Your task to perform on an android device: check out phone information Image 0: 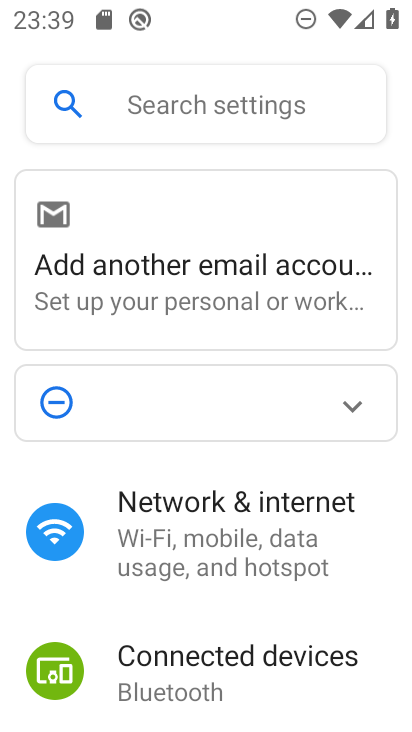
Step 0: press home button
Your task to perform on an android device: check out phone information Image 1: 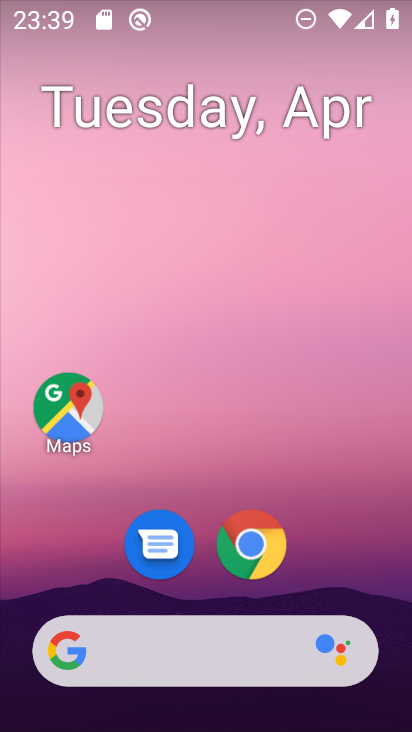
Step 1: drag from (326, 558) to (385, 79)
Your task to perform on an android device: check out phone information Image 2: 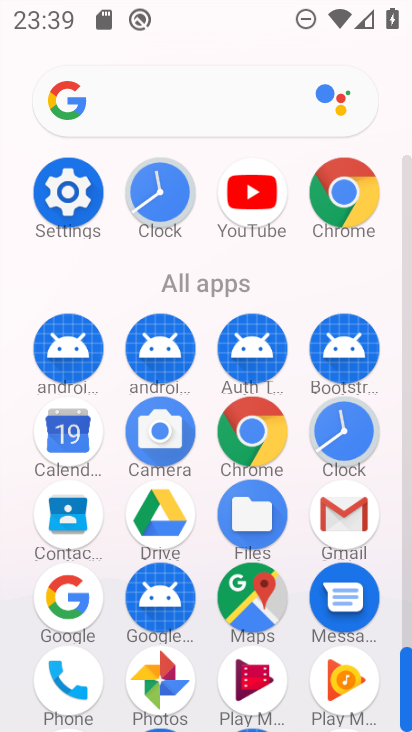
Step 2: drag from (395, 555) to (407, 296)
Your task to perform on an android device: check out phone information Image 3: 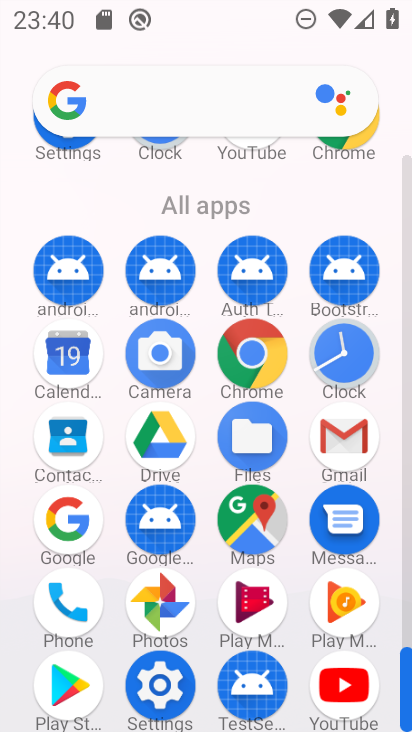
Step 3: click (83, 610)
Your task to perform on an android device: check out phone information Image 4: 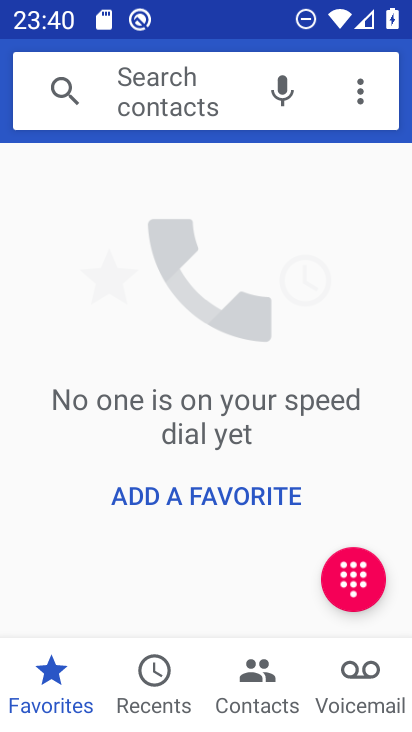
Step 4: click (165, 689)
Your task to perform on an android device: check out phone information Image 5: 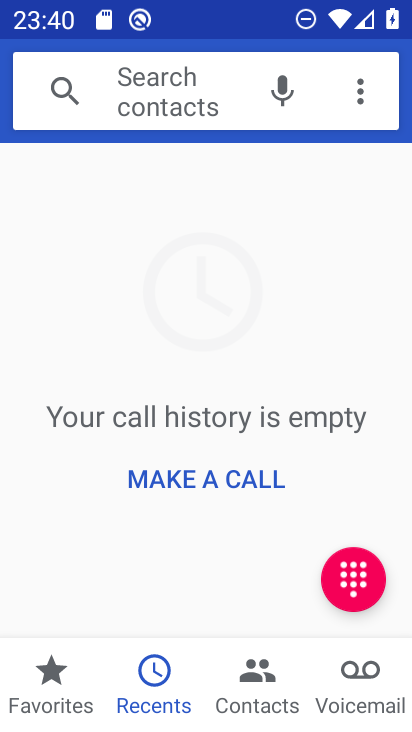
Step 5: task complete